Your task to perform on an android device: Find coffee shops on Maps Image 0: 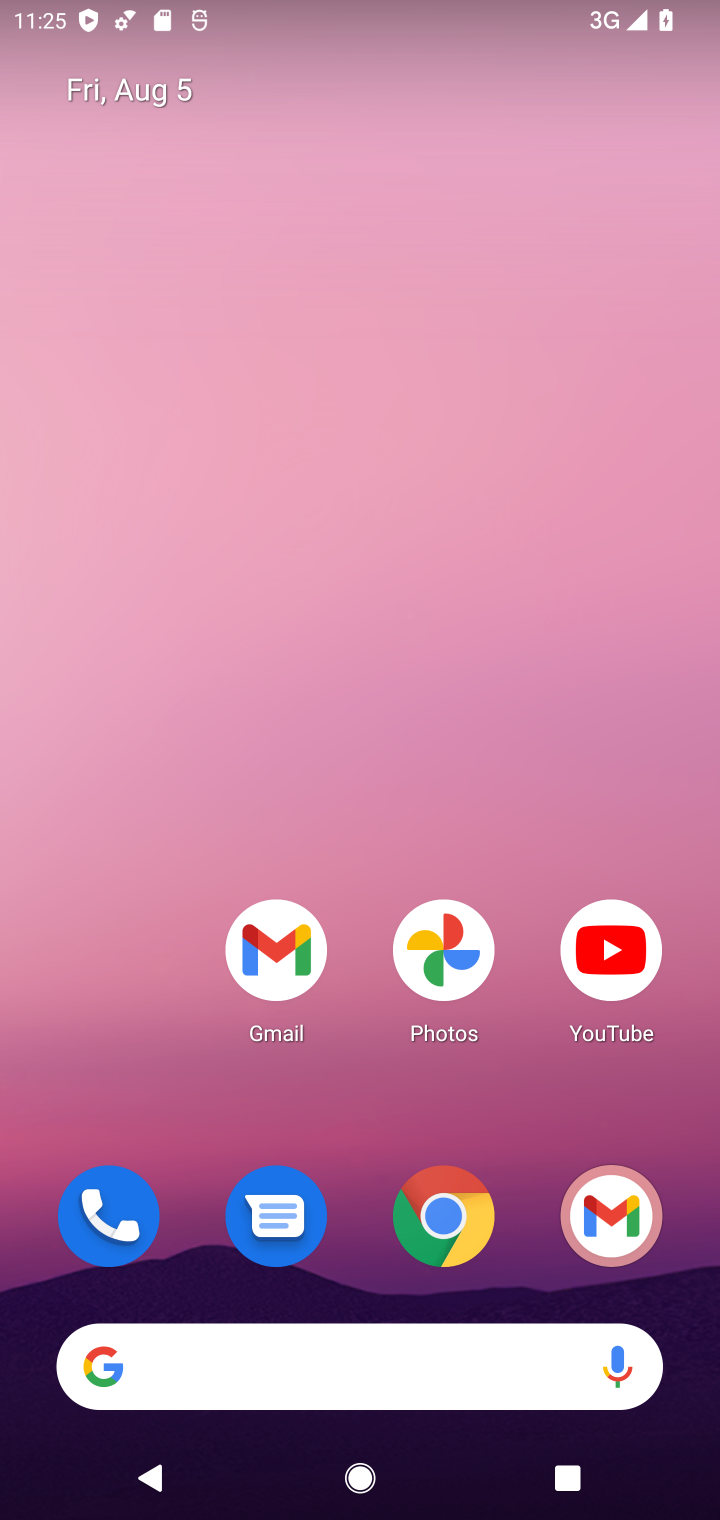
Step 0: drag from (312, 1387) to (559, 140)
Your task to perform on an android device: Find coffee shops on Maps Image 1: 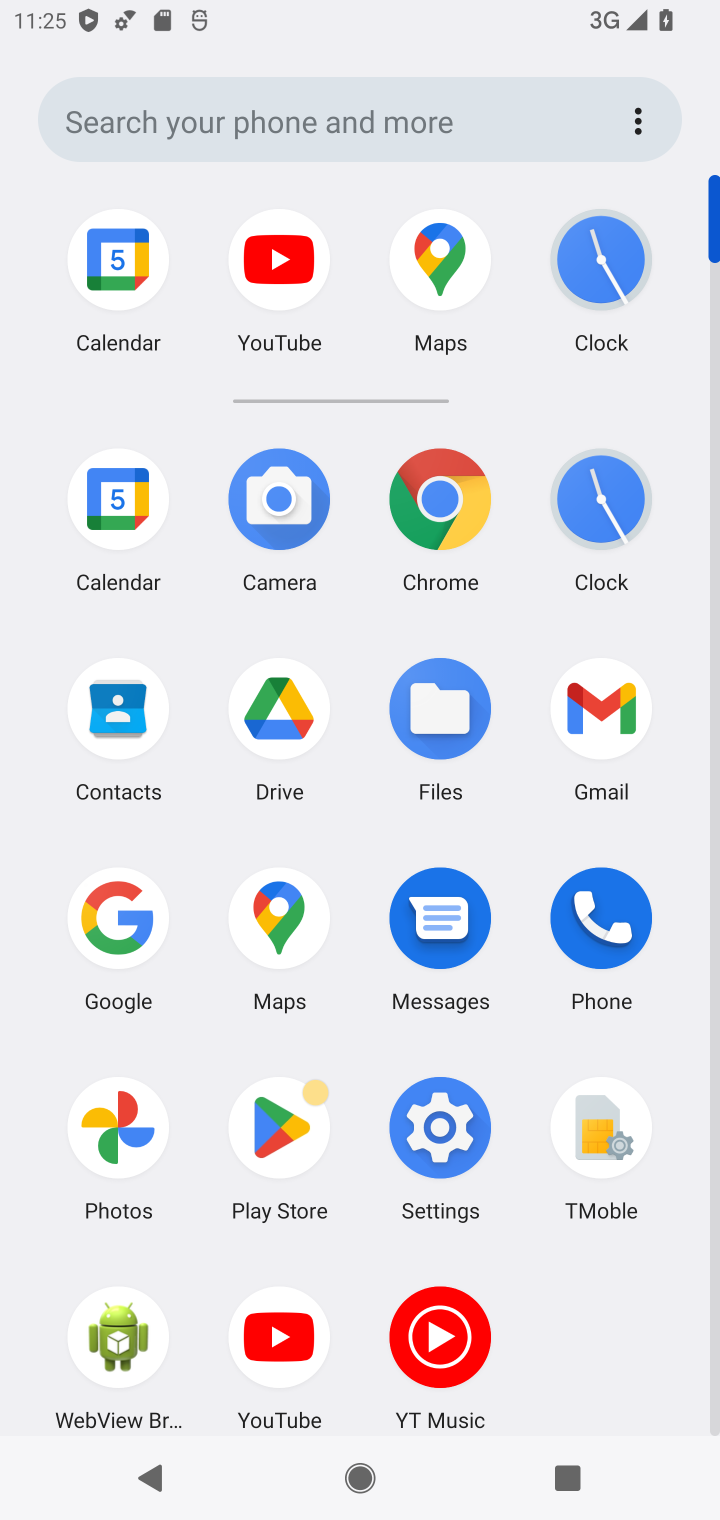
Step 1: click (275, 930)
Your task to perform on an android device: Find coffee shops on Maps Image 2: 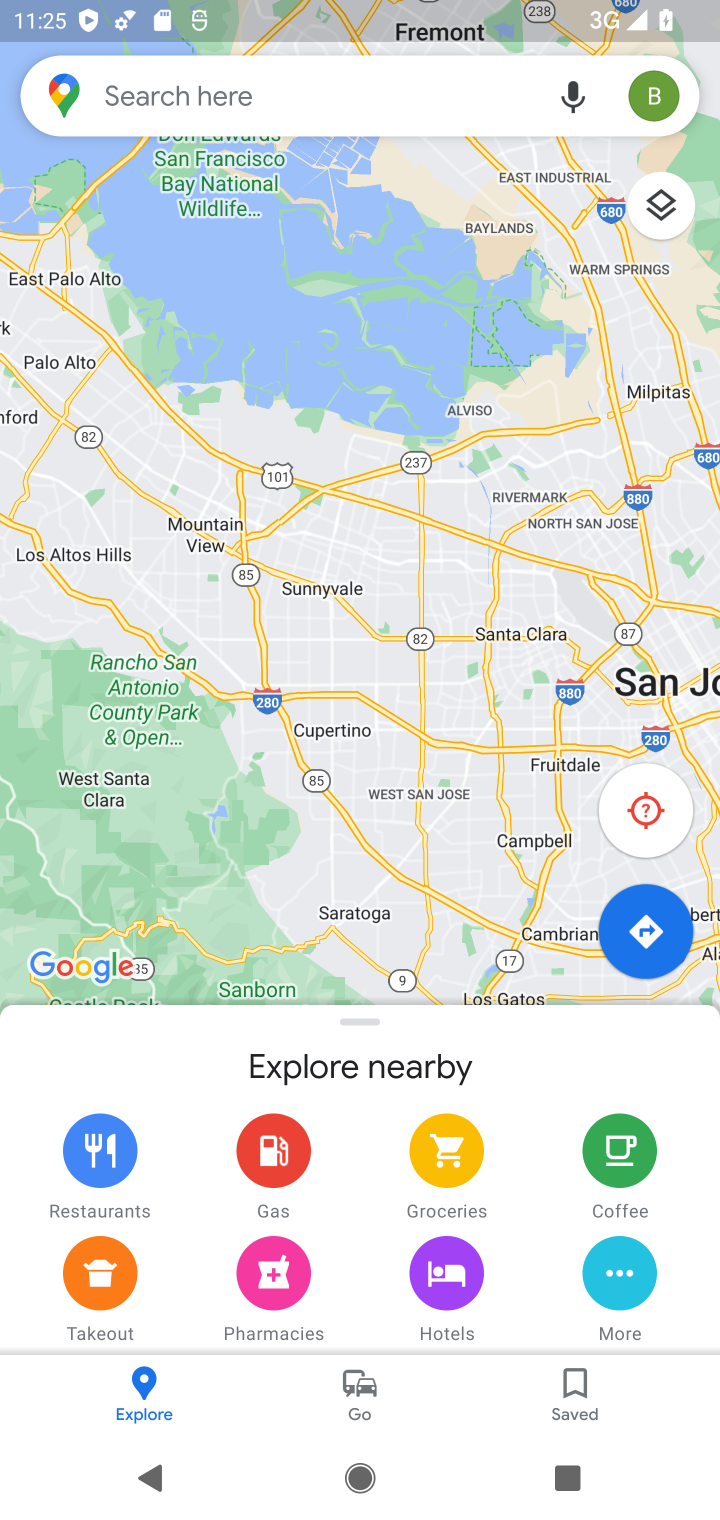
Step 2: click (261, 76)
Your task to perform on an android device: Find coffee shops on Maps Image 3: 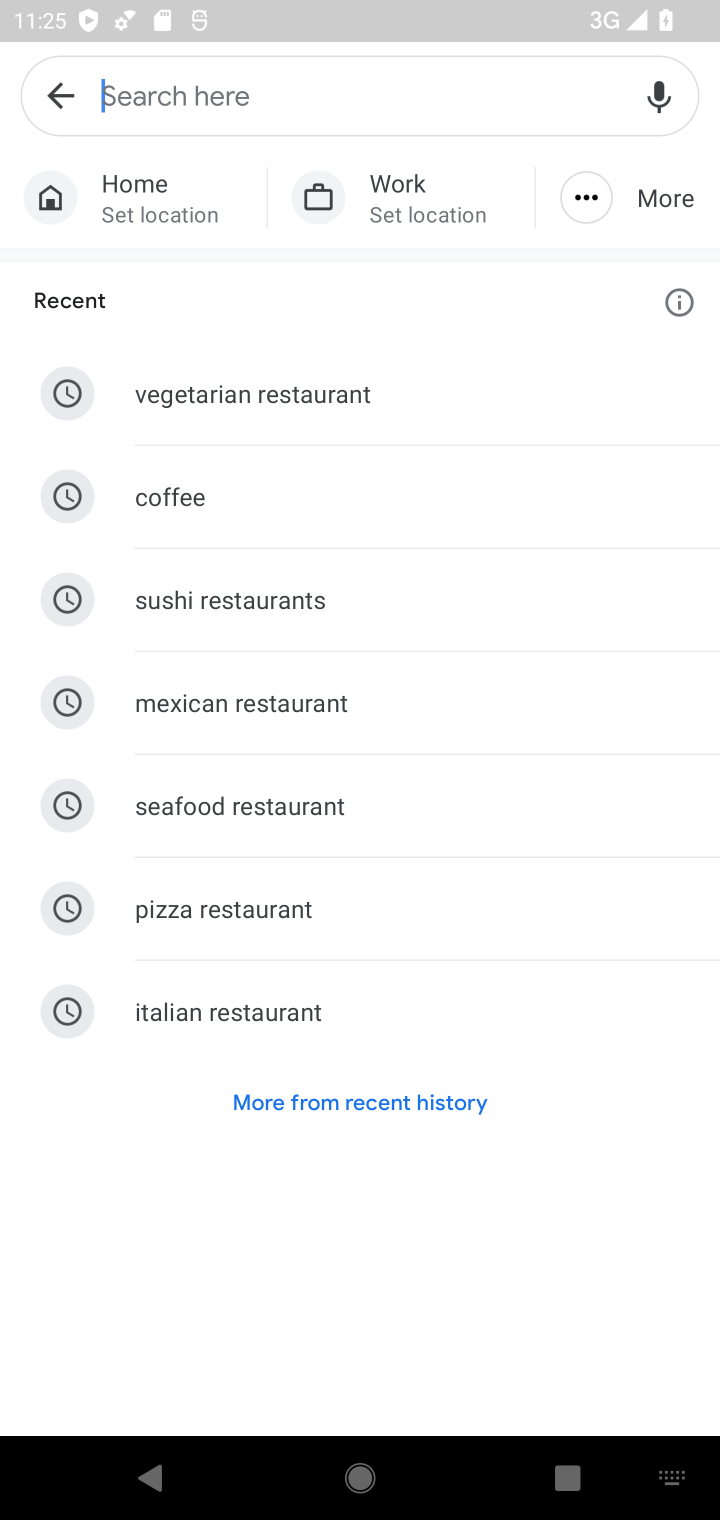
Step 3: type "coffee shops"
Your task to perform on an android device: Find coffee shops on Maps Image 4: 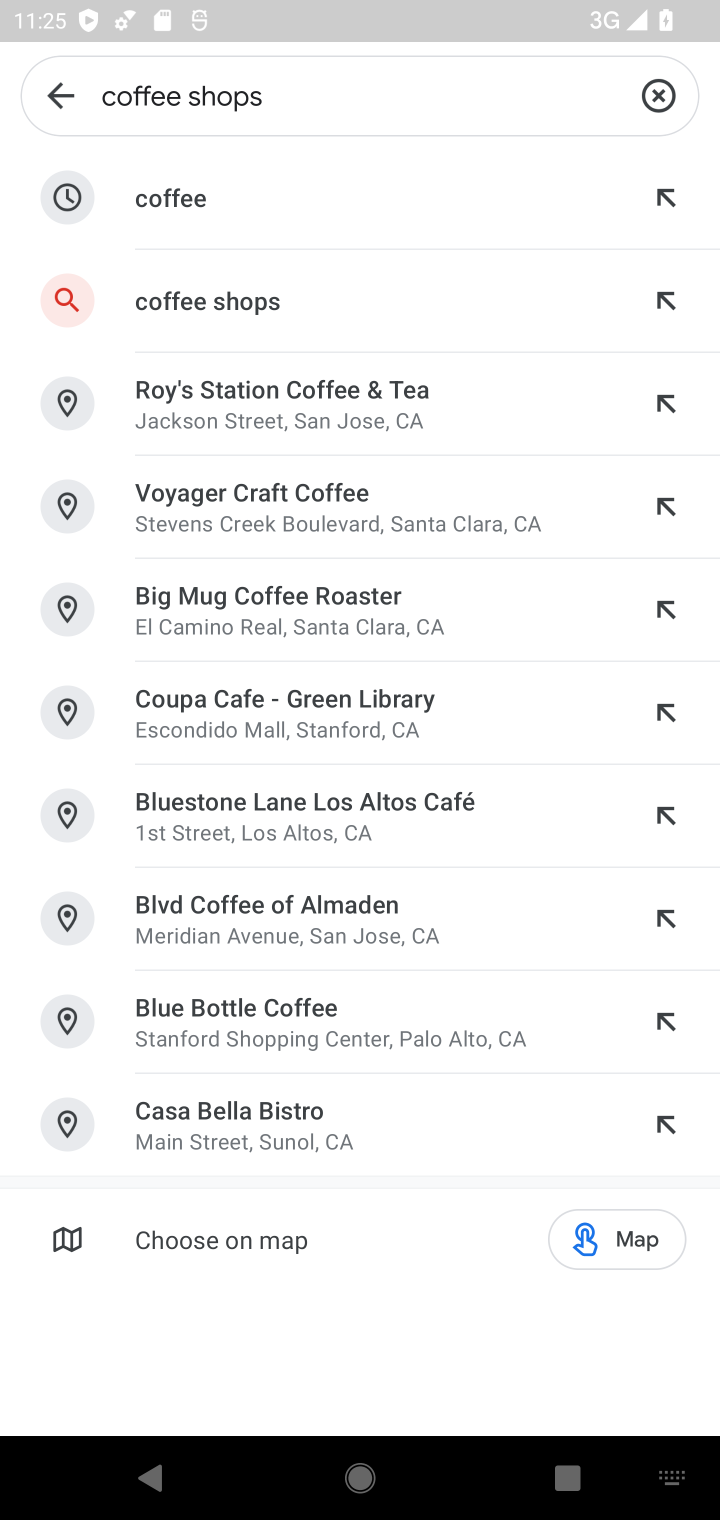
Step 4: click (326, 306)
Your task to perform on an android device: Find coffee shops on Maps Image 5: 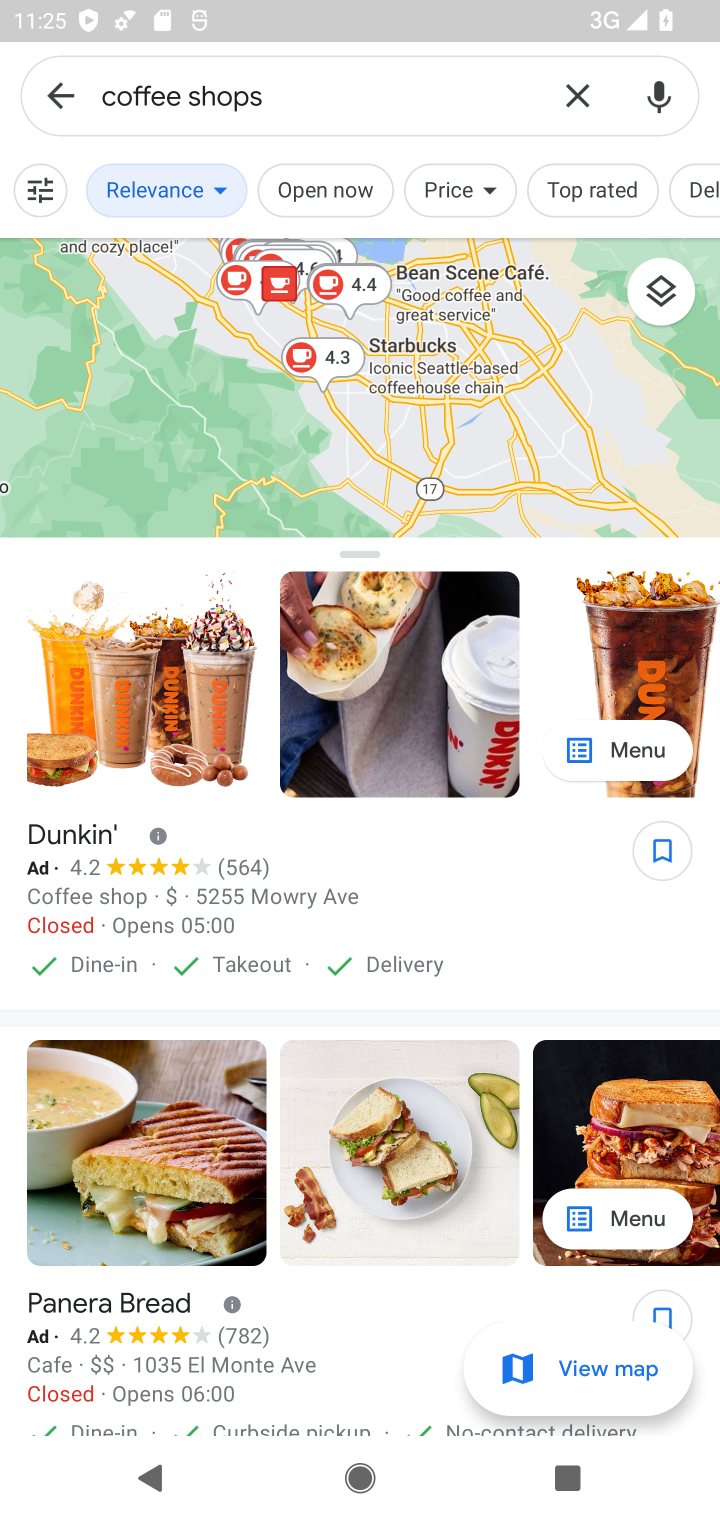
Step 5: task complete